Your task to perform on an android device: Open Amazon Image 0: 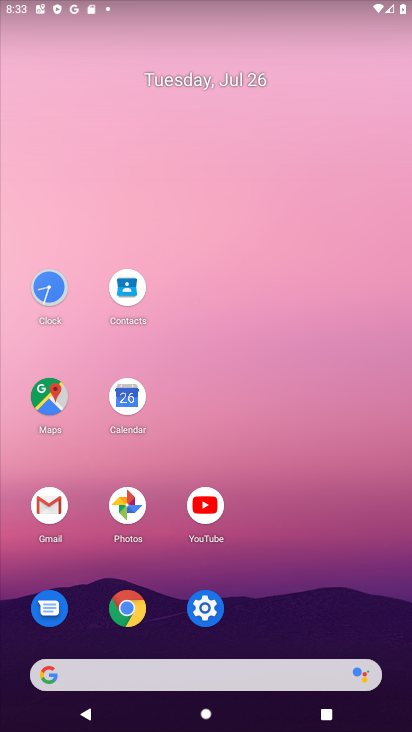
Step 0: click (128, 603)
Your task to perform on an android device: Open Amazon Image 1: 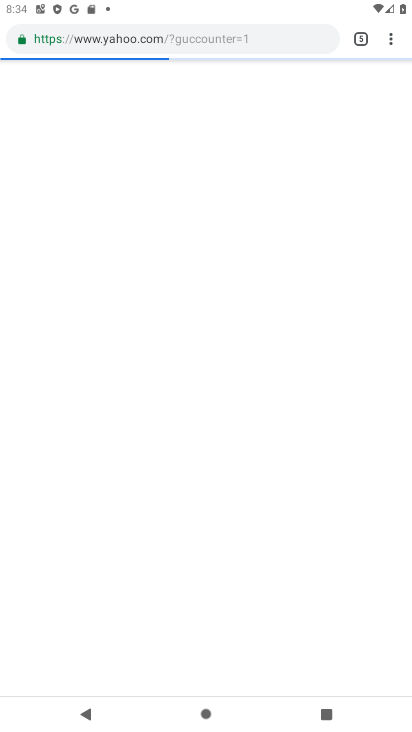
Step 1: click (393, 37)
Your task to perform on an android device: Open Amazon Image 2: 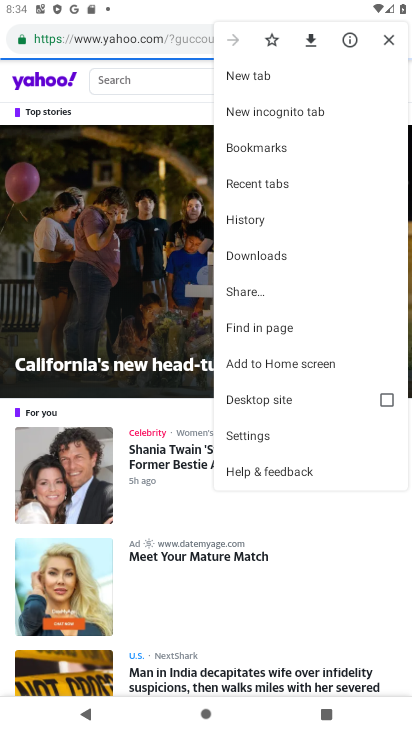
Step 2: click (245, 76)
Your task to perform on an android device: Open Amazon Image 3: 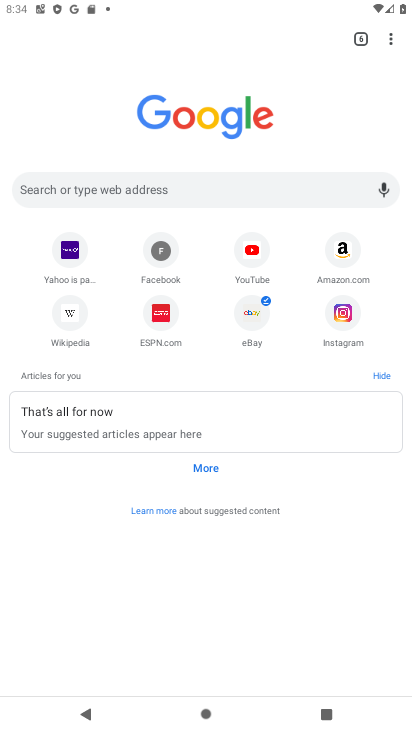
Step 3: click (333, 254)
Your task to perform on an android device: Open Amazon Image 4: 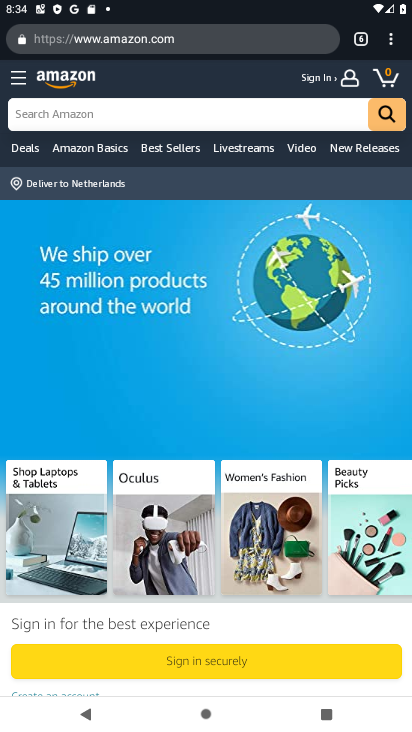
Step 4: task complete